Your task to perform on an android device: open a new tab in the chrome app Image 0: 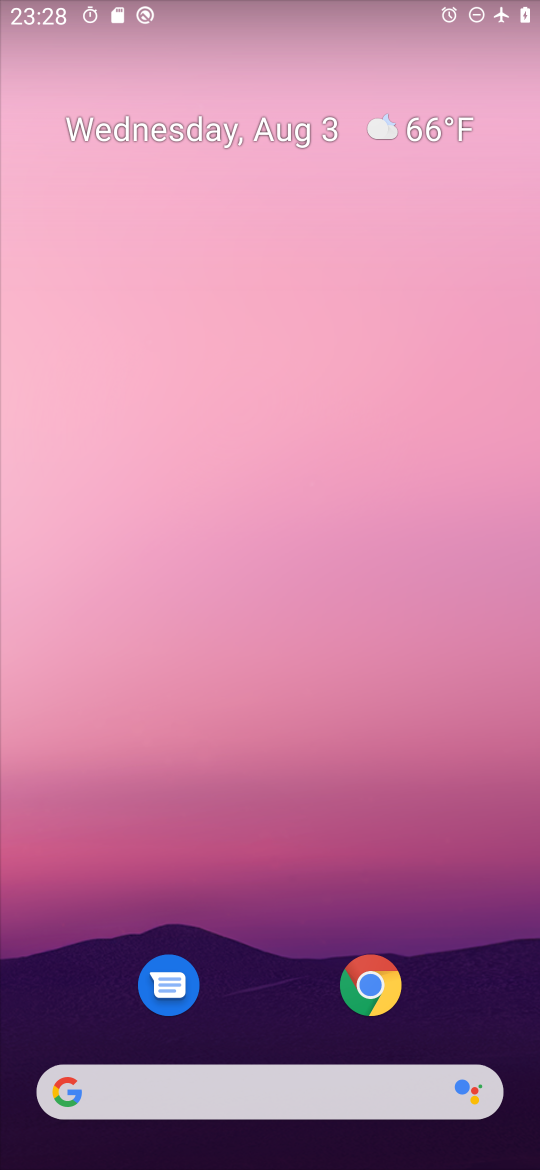
Step 0: click (359, 995)
Your task to perform on an android device: open a new tab in the chrome app Image 1: 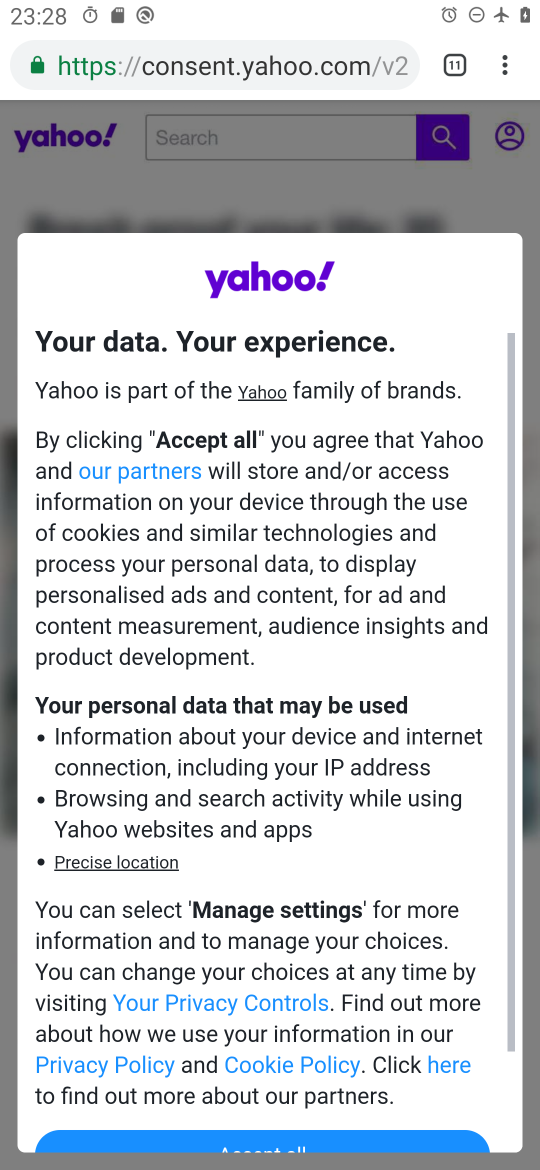
Step 1: click (454, 55)
Your task to perform on an android device: open a new tab in the chrome app Image 2: 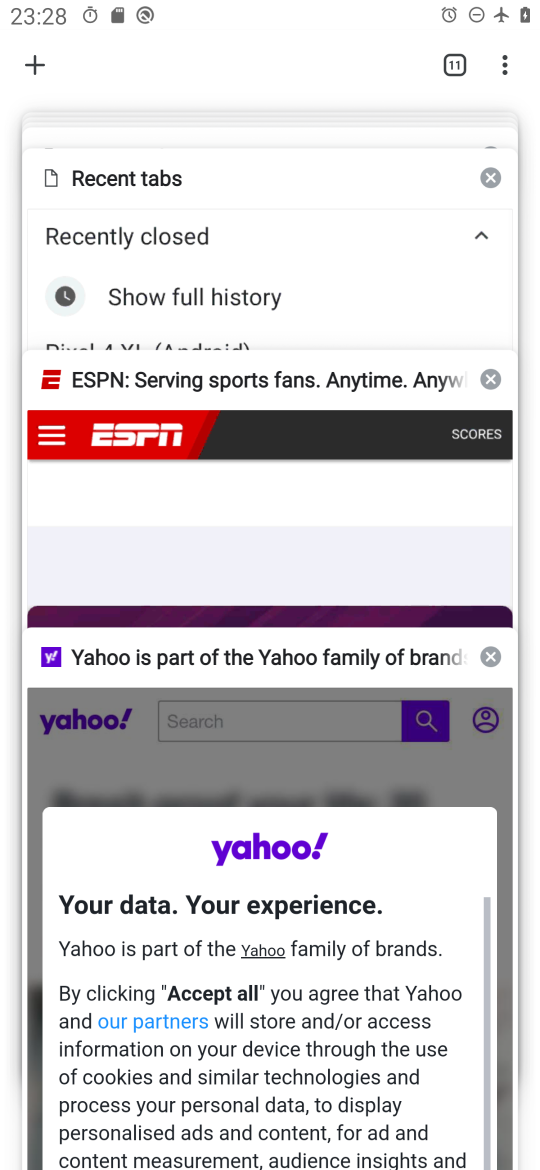
Step 2: click (48, 62)
Your task to perform on an android device: open a new tab in the chrome app Image 3: 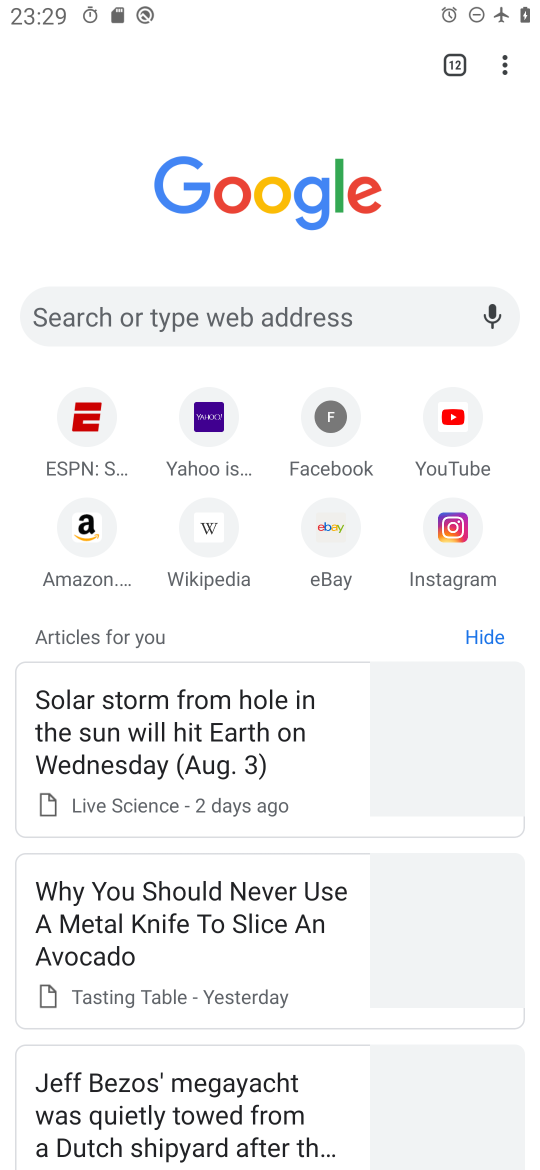
Step 3: task complete